Your task to perform on an android device: Add macbook to the cart on costco.com Image 0: 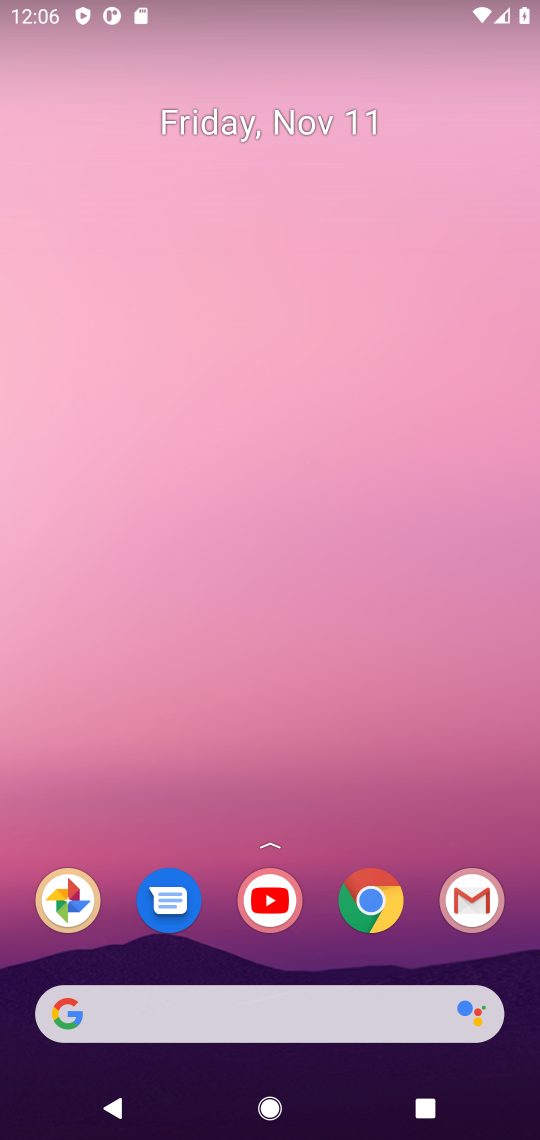
Step 0: click (373, 901)
Your task to perform on an android device: Add macbook to the cart on costco.com Image 1: 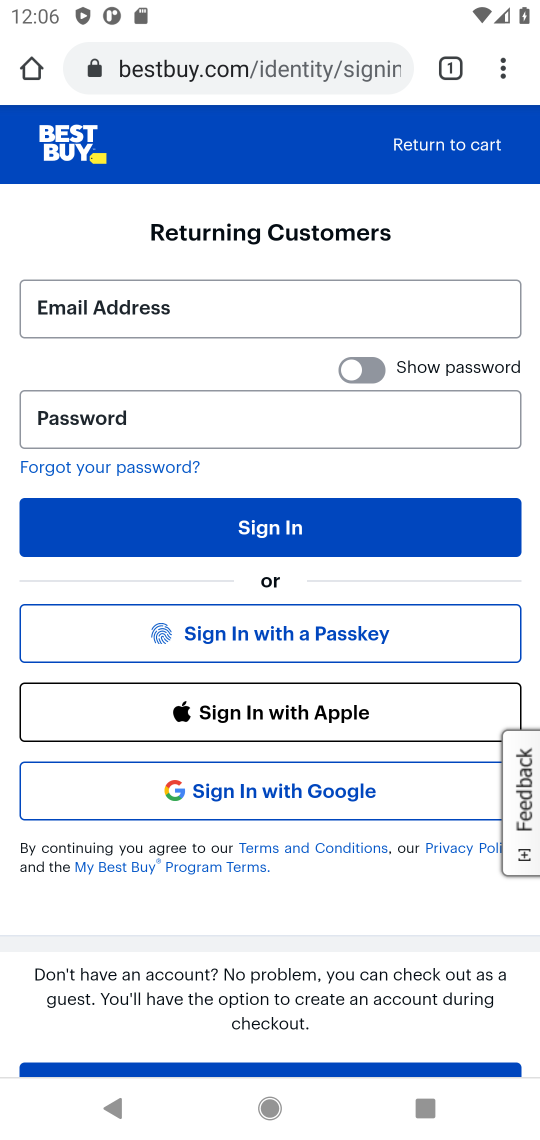
Step 1: click (310, 69)
Your task to perform on an android device: Add macbook to the cart on costco.com Image 2: 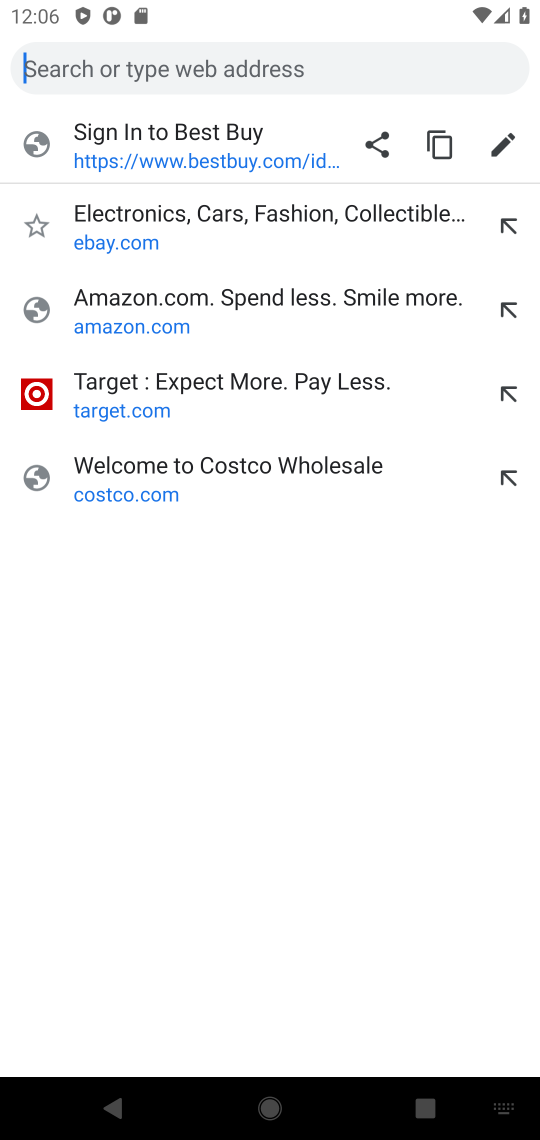
Step 2: type "costco.com"
Your task to perform on an android device: Add macbook to the cart on costco.com Image 3: 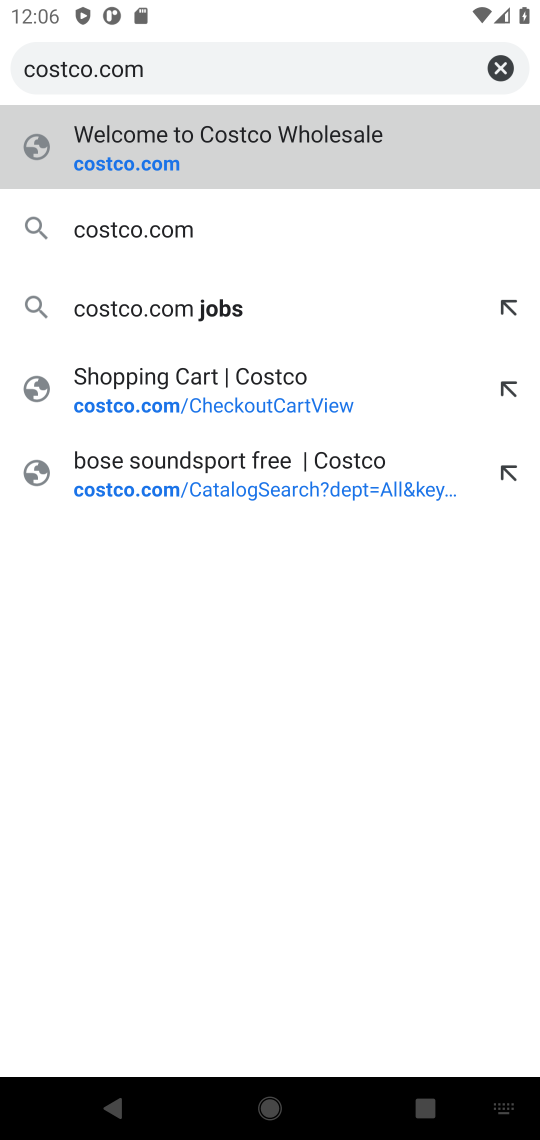
Step 3: press enter
Your task to perform on an android device: Add macbook to the cart on costco.com Image 4: 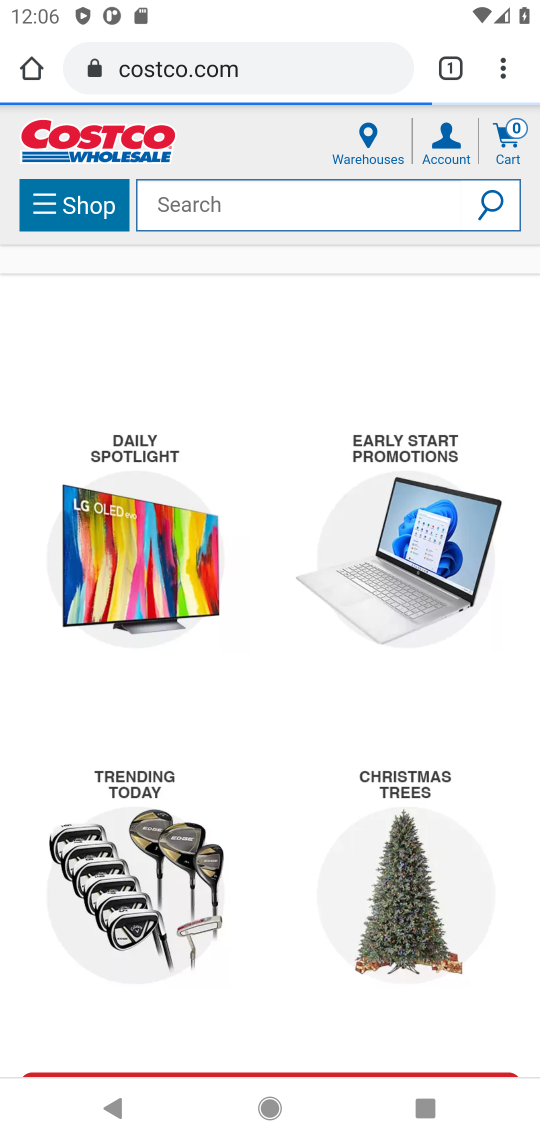
Step 4: click (221, 199)
Your task to perform on an android device: Add macbook to the cart on costco.com Image 5: 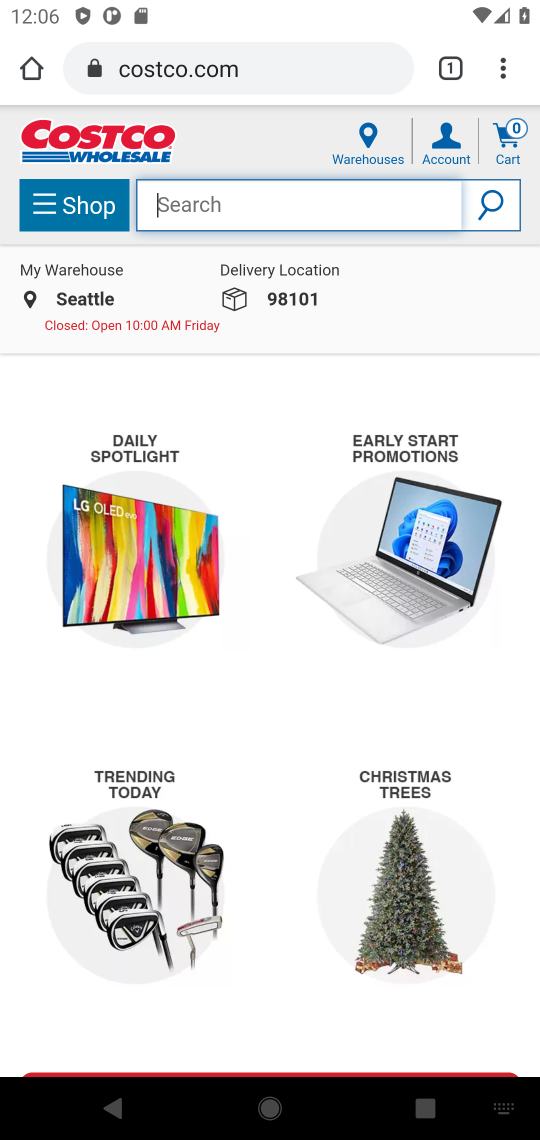
Step 5: type "macbook"
Your task to perform on an android device: Add macbook to the cart on costco.com Image 6: 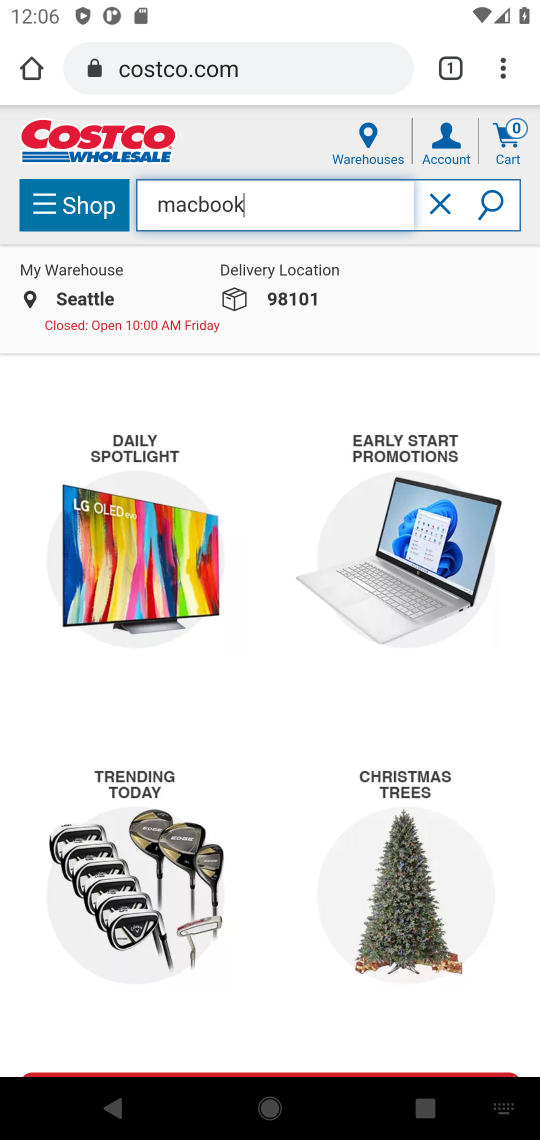
Step 6: press enter
Your task to perform on an android device: Add macbook to the cart on costco.com Image 7: 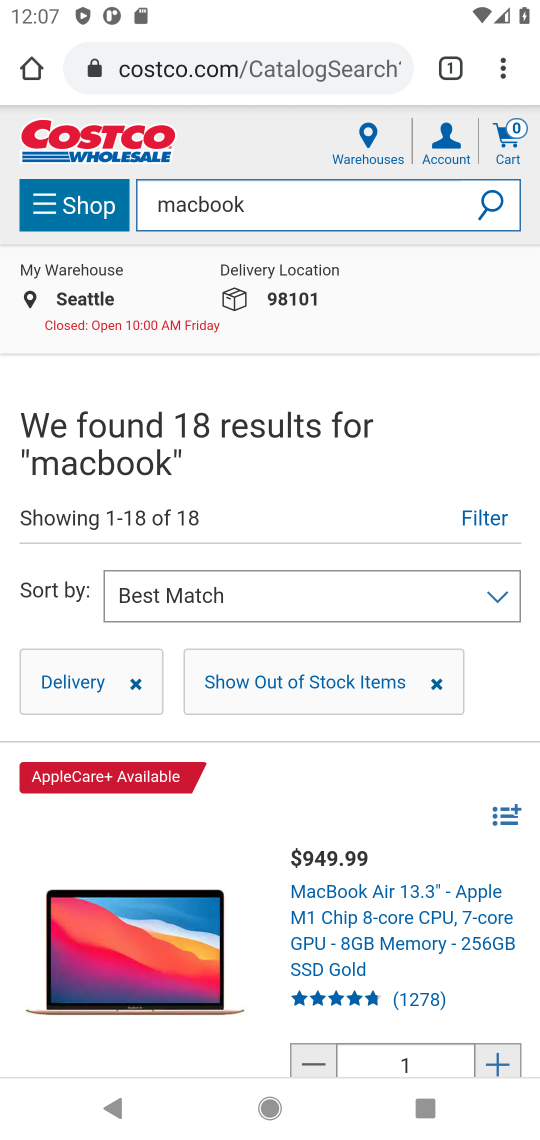
Step 7: drag from (335, 914) to (429, 596)
Your task to perform on an android device: Add macbook to the cart on costco.com Image 8: 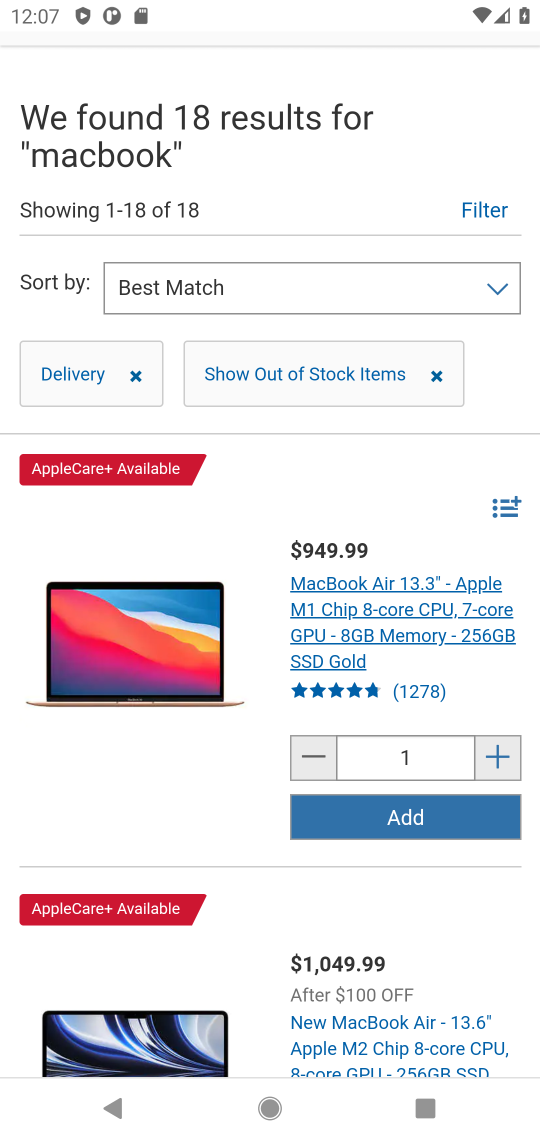
Step 8: click (422, 813)
Your task to perform on an android device: Add macbook to the cart on costco.com Image 9: 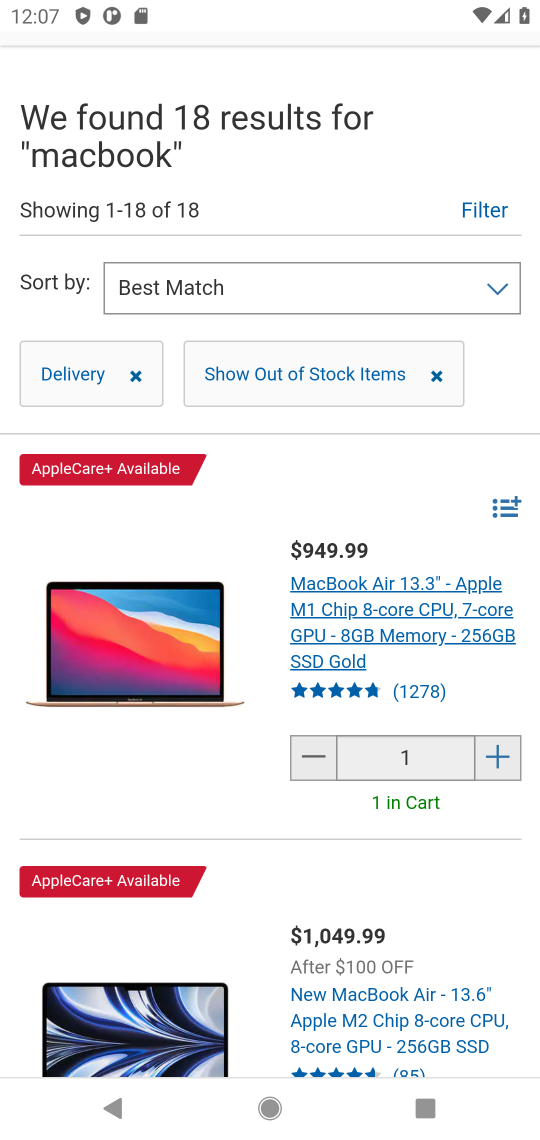
Step 9: drag from (342, 452) to (342, 945)
Your task to perform on an android device: Add macbook to the cart on costco.com Image 10: 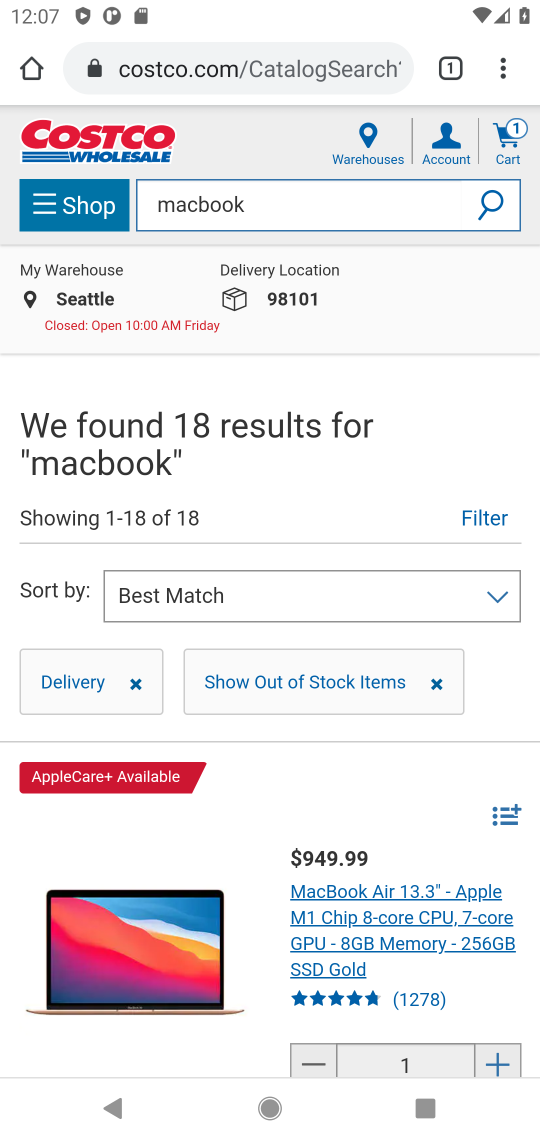
Step 10: click (503, 138)
Your task to perform on an android device: Add macbook to the cart on costco.com Image 11: 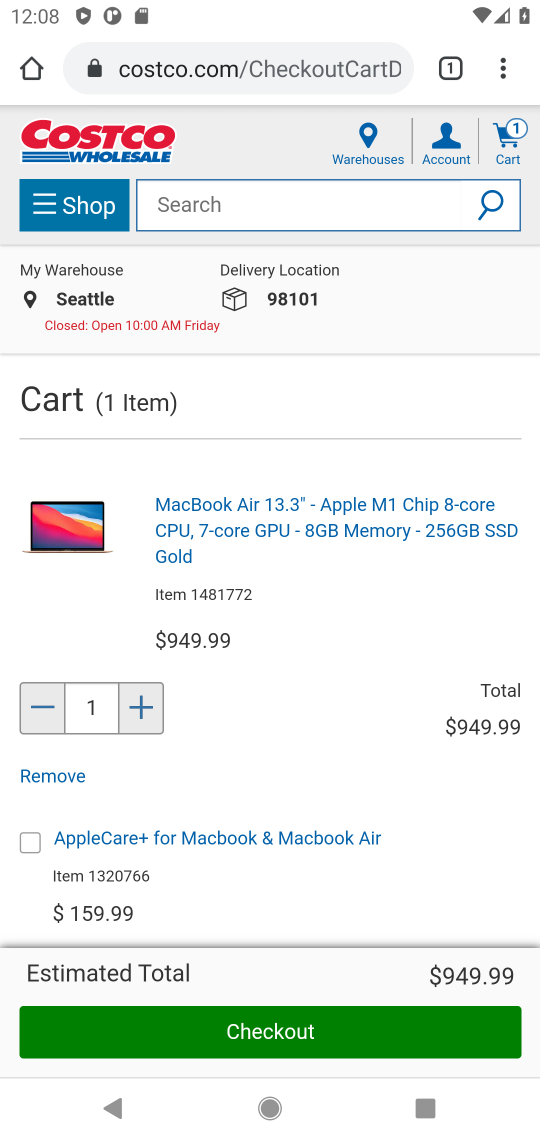
Step 11: task complete